Your task to perform on an android device: Search for Italian restaurants on Maps Image 0: 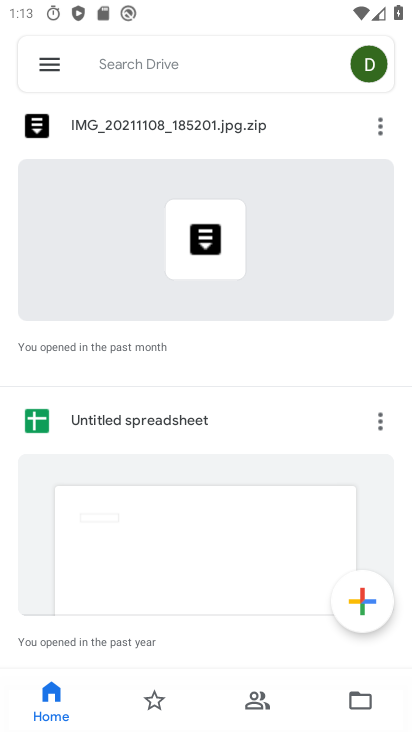
Step 0: press back button
Your task to perform on an android device: Search for Italian restaurants on Maps Image 1: 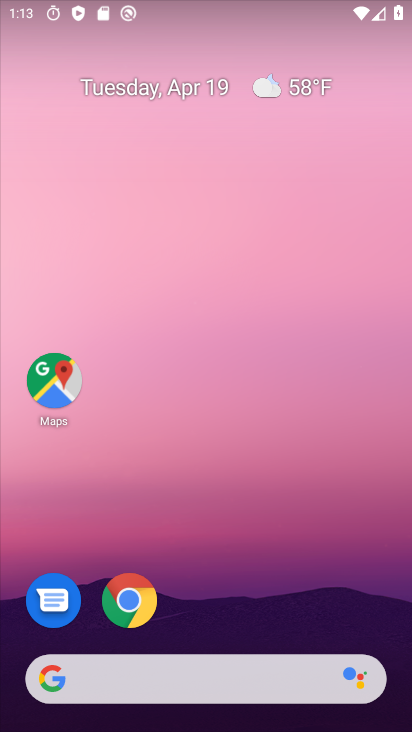
Step 1: drag from (196, 700) to (349, 71)
Your task to perform on an android device: Search for Italian restaurants on Maps Image 2: 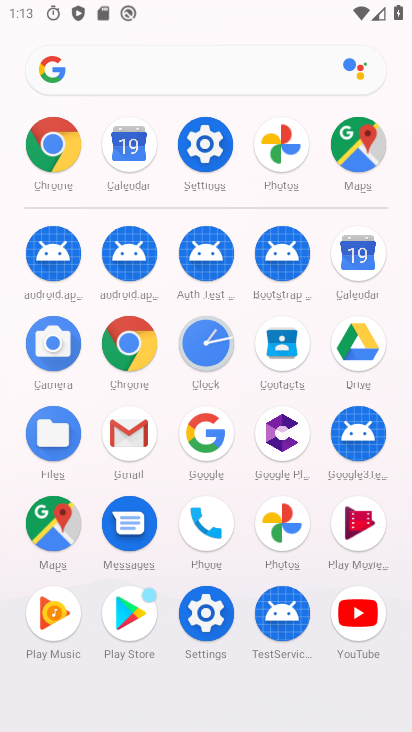
Step 2: click (353, 138)
Your task to perform on an android device: Search for Italian restaurants on Maps Image 3: 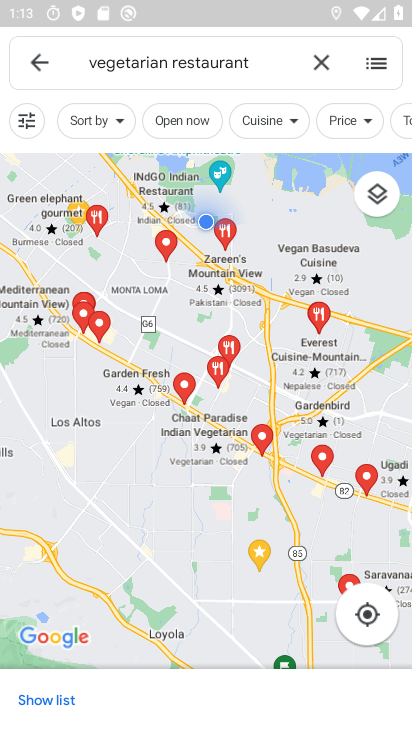
Step 3: click (314, 59)
Your task to perform on an android device: Search for Italian restaurants on Maps Image 4: 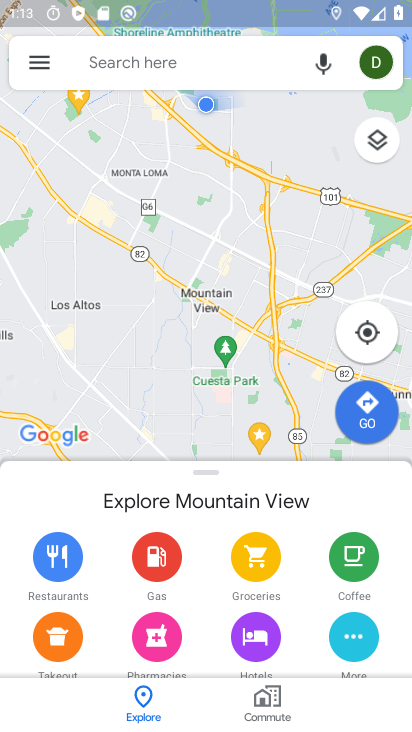
Step 4: click (148, 72)
Your task to perform on an android device: Search for Italian restaurants on Maps Image 5: 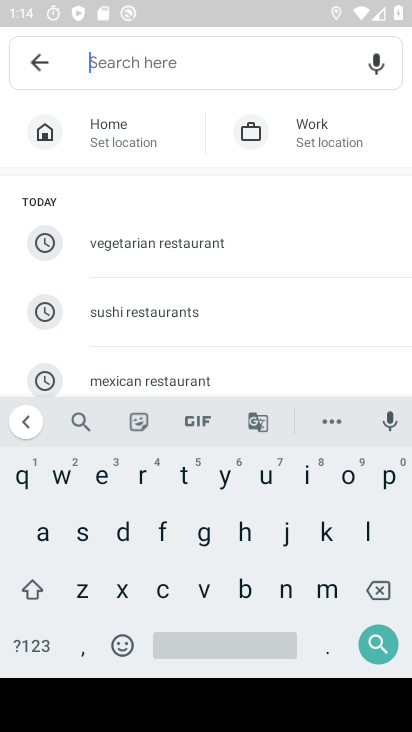
Step 5: click (306, 480)
Your task to perform on an android device: Search for Italian restaurants on Maps Image 6: 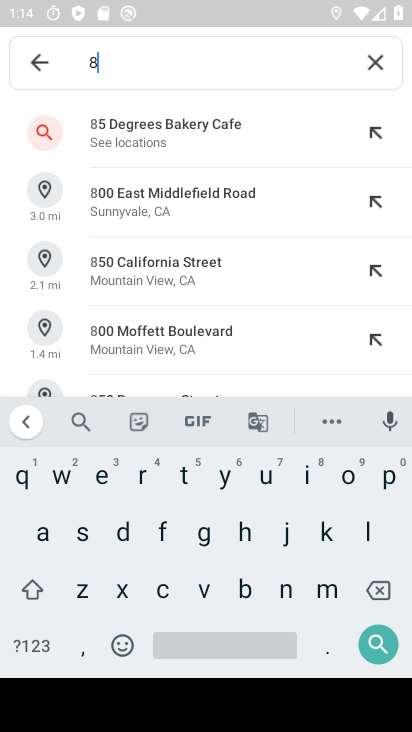
Step 6: click (368, 78)
Your task to perform on an android device: Search for Italian restaurants on Maps Image 7: 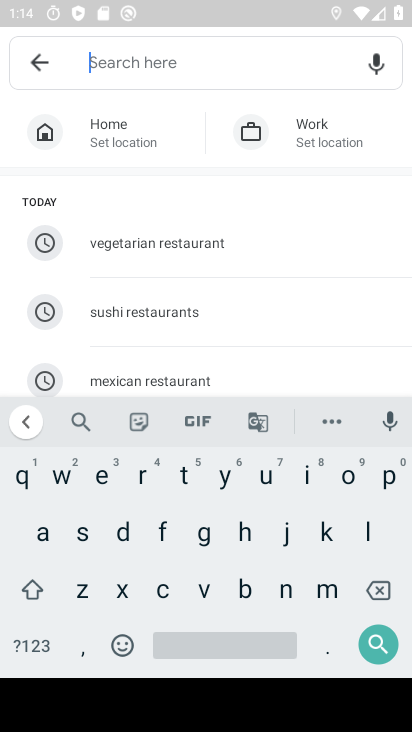
Step 7: click (306, 485)
Your task to perform on an android device: Search for Italian restaurants on Maps Image 8: 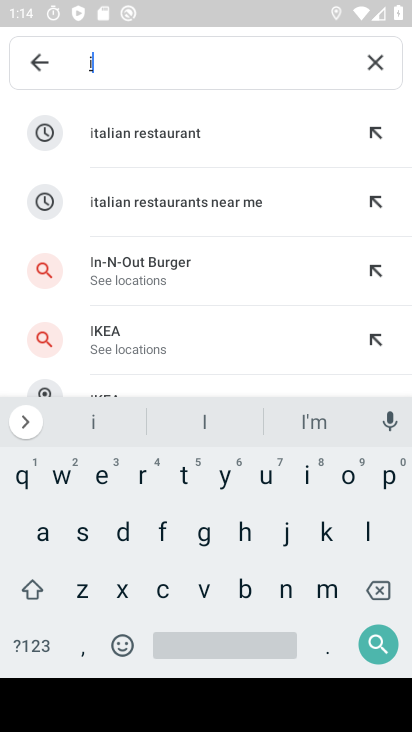
Step 8: click (166, 144)
Your task to perform on an android device: Search for Italian restaurants on Maps Image 9: 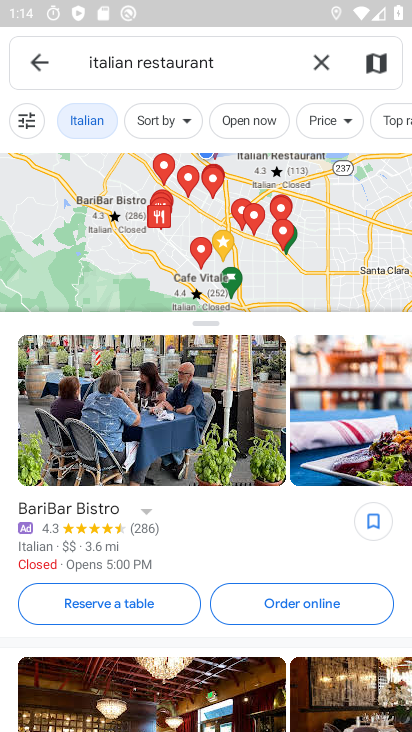
Step 9: task complete